Your task to perform on an android device: open wifi settings Image 0: 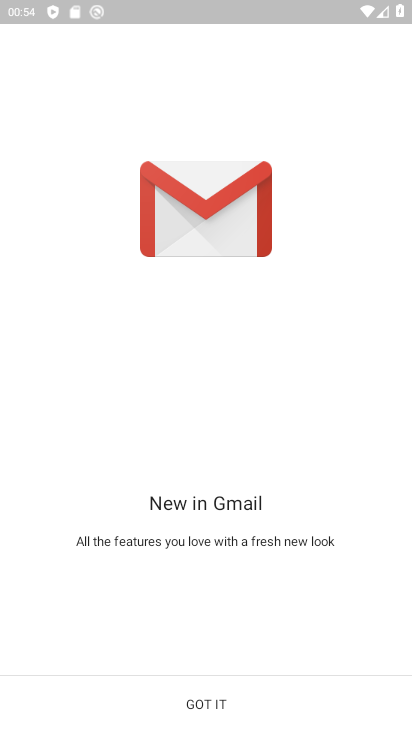
Step 0: press home button
Your task to perform on an android device: open wifi settings Image 1: 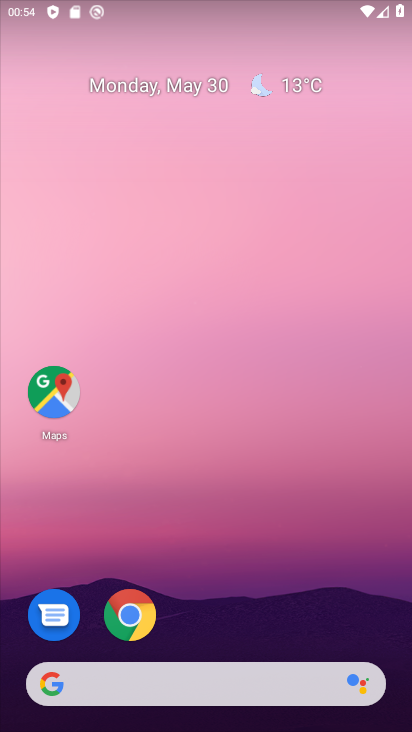
Step 1: drag from (190, 639) to (151, 19)
Your task to perform on an android device: open wifi settings Image 2: 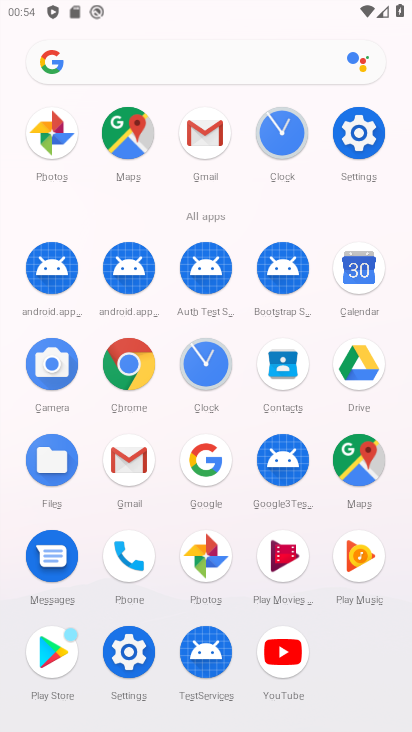
Step 2: click (144, 470)
Your task to perform on an android device: open wifi settings Image 3: 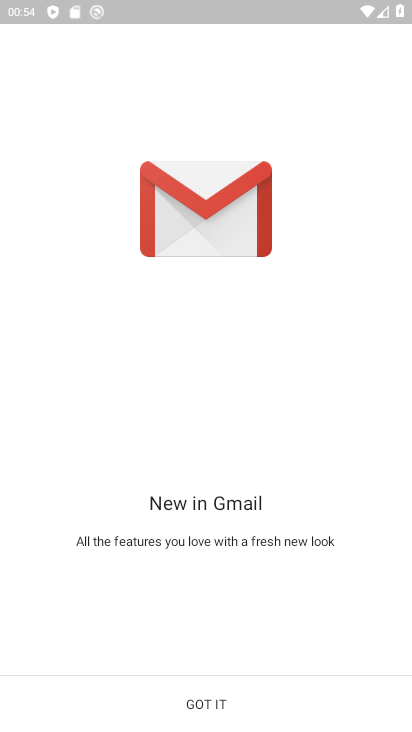
Step 3: press home button
Your task to perform on an android device: open wifi settings Image 4: 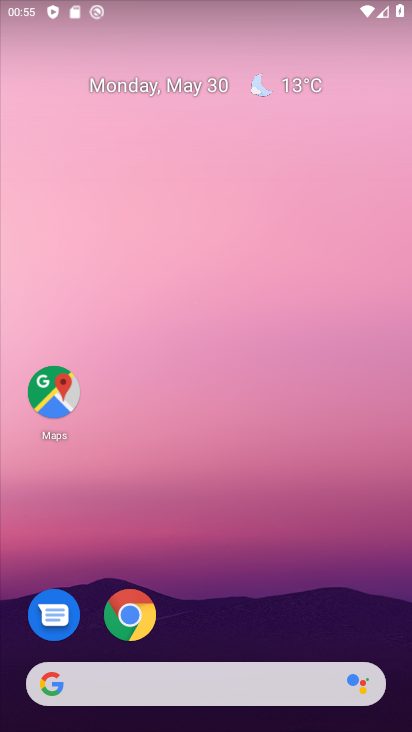
Step 4: drag from (229, 649) to (175, 111)
Your task to perform on an android device: open wifi settings Image 5: 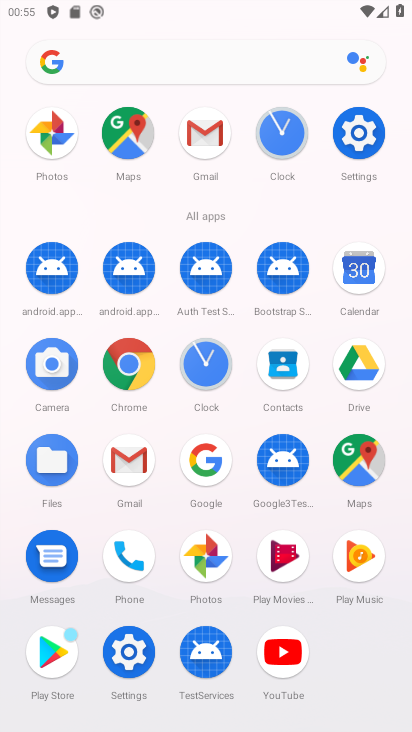
Step 5: click (356, 143)
Your task to perform on an android device: open wifi settings Image 6: 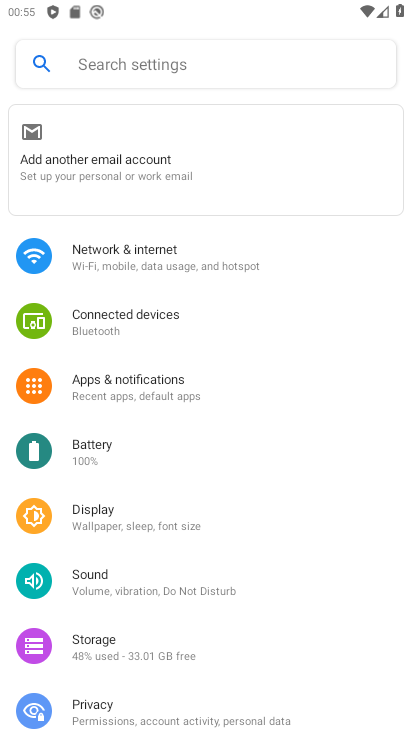
Step 6: click (101, 252)
Your task to perform on an android device: open wifi settings Image 7: 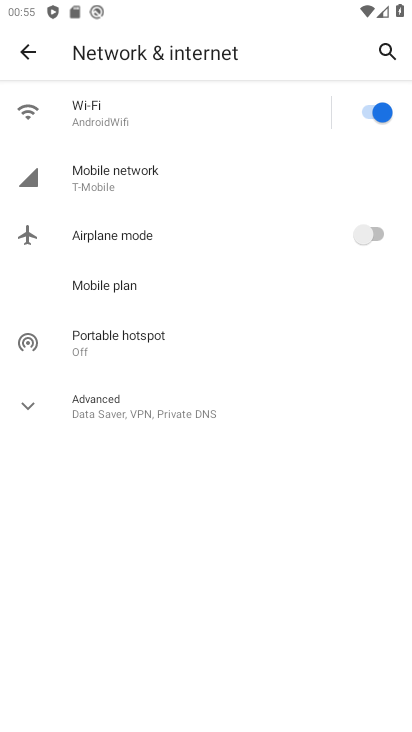
Step 7: click (132, 102)
Your task to perform on an android device: open wifi settings Image 8: 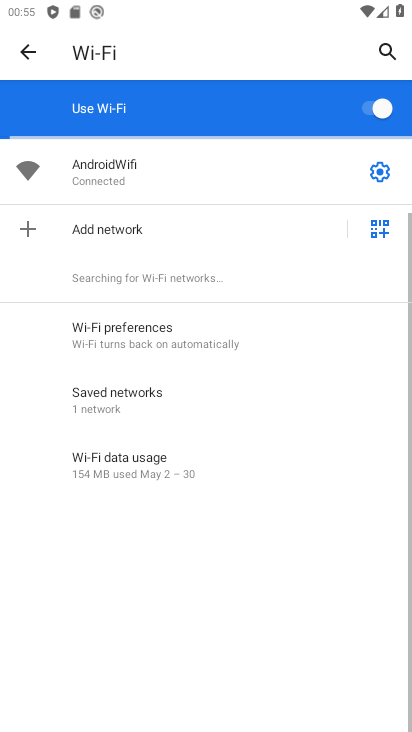
Step 8: task complete